Your task to perform on an android device: empty trash in google photos Image 0: 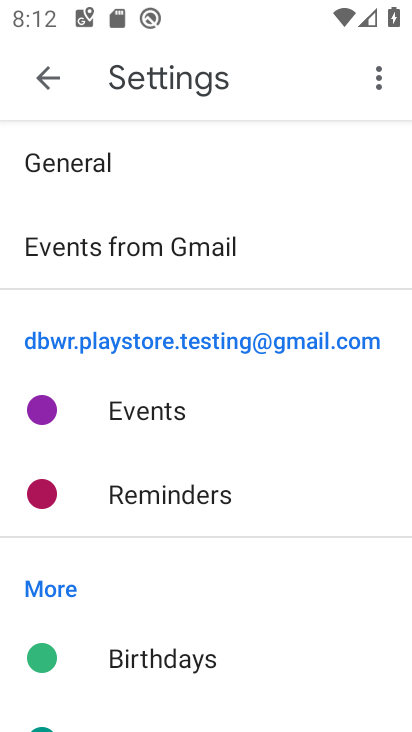
Step 0: press home button
Your task to perform on an android device: empty trash in google photos Image 1: 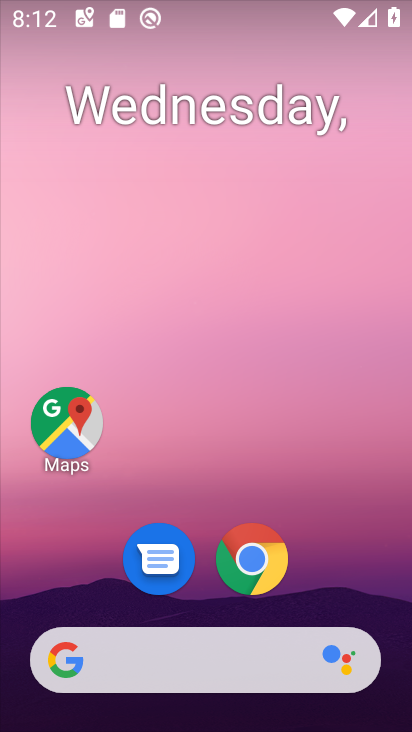
Step 1: drag from (334, 598) to (355, 162)
Your task to perform on an android device: empty trash in google photos Image 2: 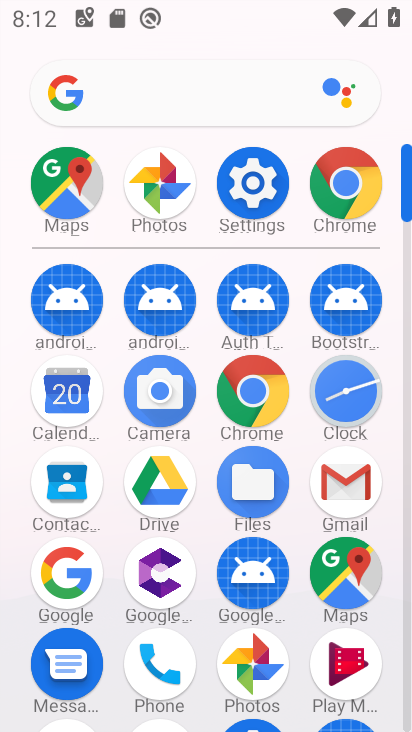
Step 2: click (332, 498)
Your task to perform on an android device: empty trash in google photos Image 3: 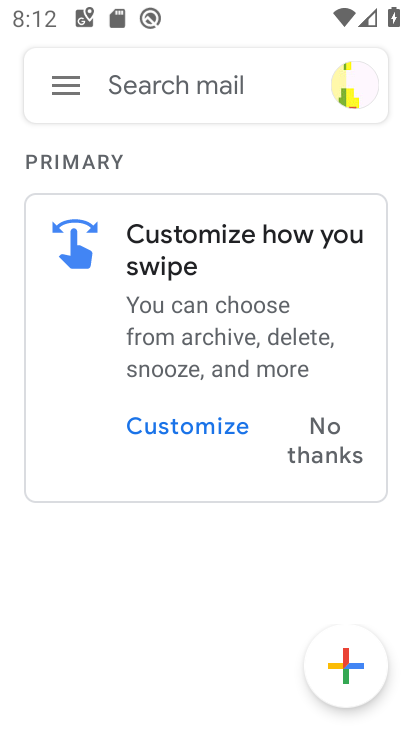
Step 3: click (76, 94)
Your task to perform on an android device: empty trash in google photos Image 4: 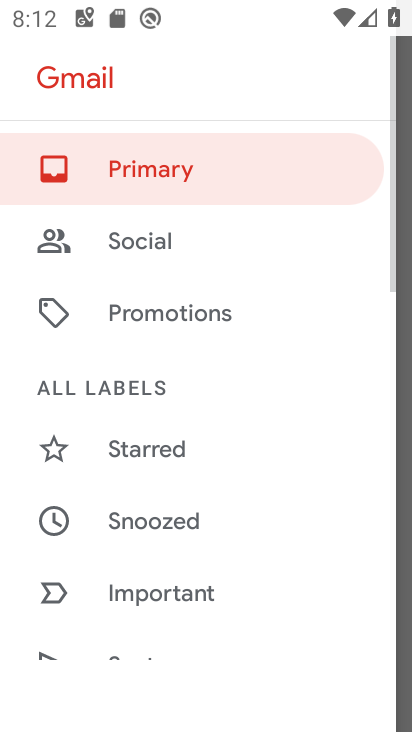
Step 4: drag from (287, 603) to (300, 129)
Your task to perform on an android device: empty trash in google photos Image 5: 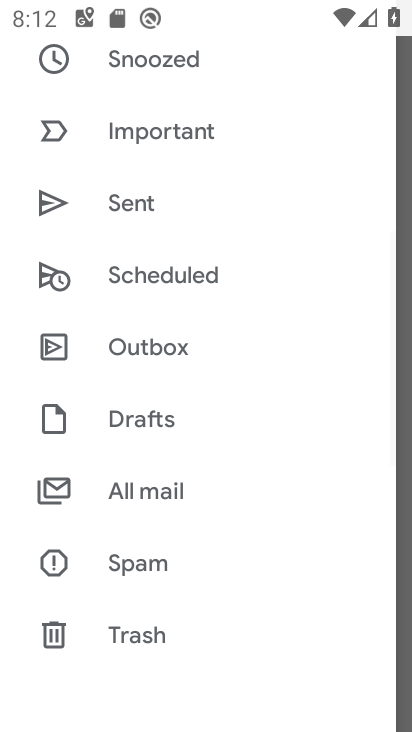
Step 5: drag from (265, 552) to (264, 224)
Your task to perform on an android device: empty trash in google photos Image 6: 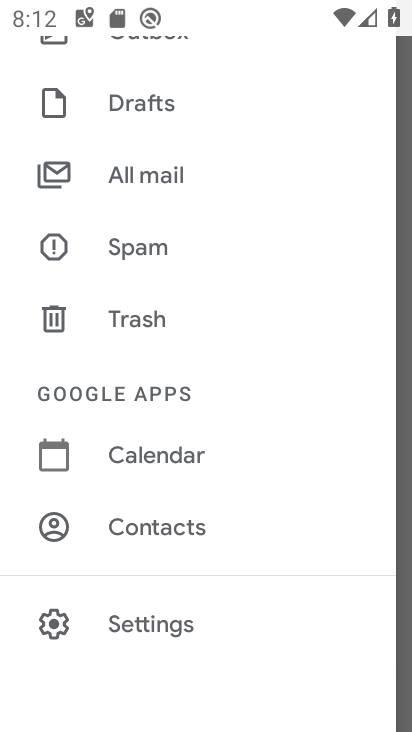
Step 6: click (170, 318)
Your task to perform on an android device: empty trash in google photos Image 7: 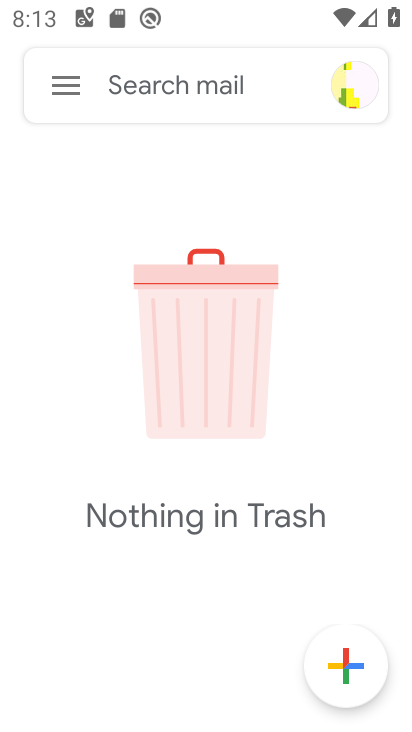
Step 7: task complete